Your task to perform on an android device: change timer sound Image 0: 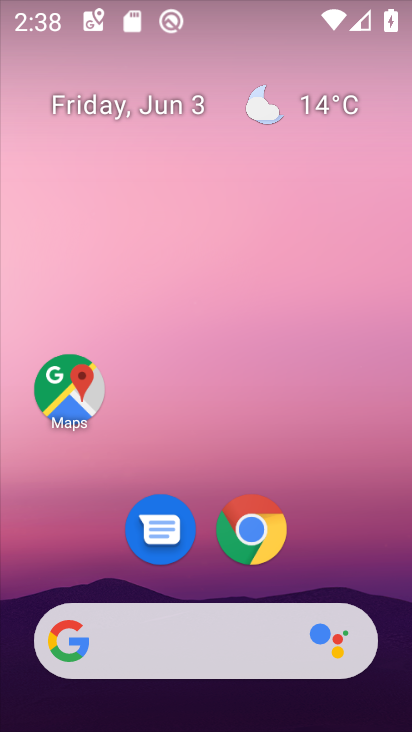
Step 0: drag from (226, 640) to (168, 260)
Your task to perform on an android device: change timer sound Image 1: 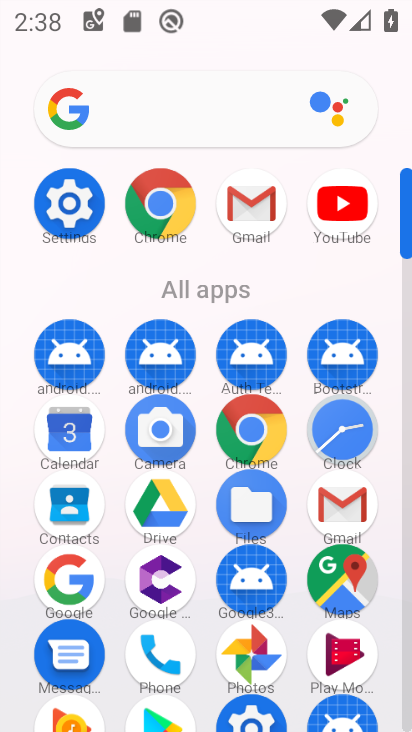
Step 1: click (333, 435)
Your task to perform on an android device: change timer sound Image 2: 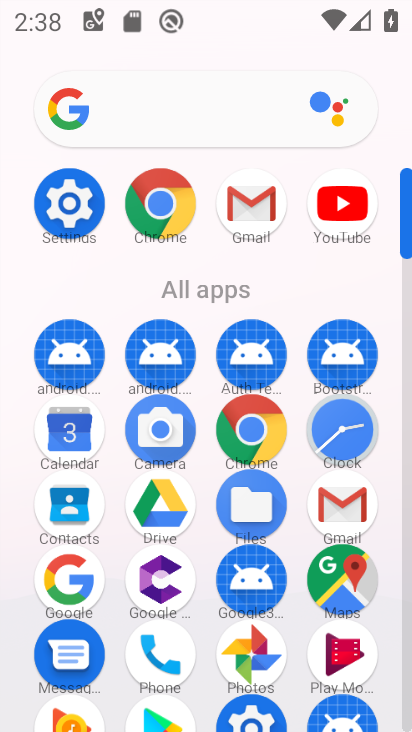
Step 2: click (335, 429)
Your task to perform on an android device: change timer sound Image 3: 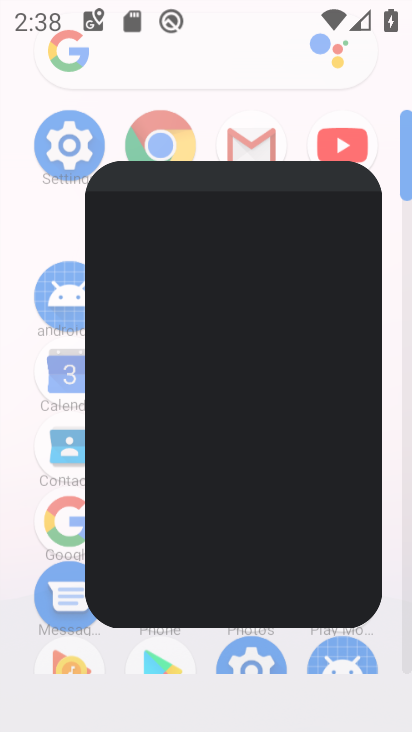
Step 3: click (336, 429)
Your task to perform on an android device: change timer sound Image 4: 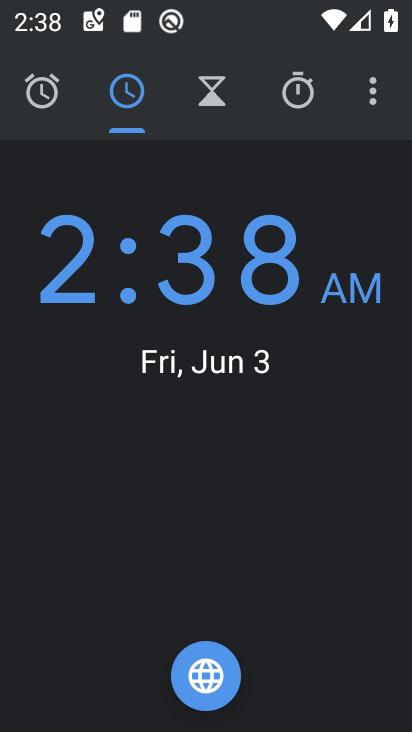
Step 4: click (215, 84)
Your task to perform on an android device: change timer sound Image 5: 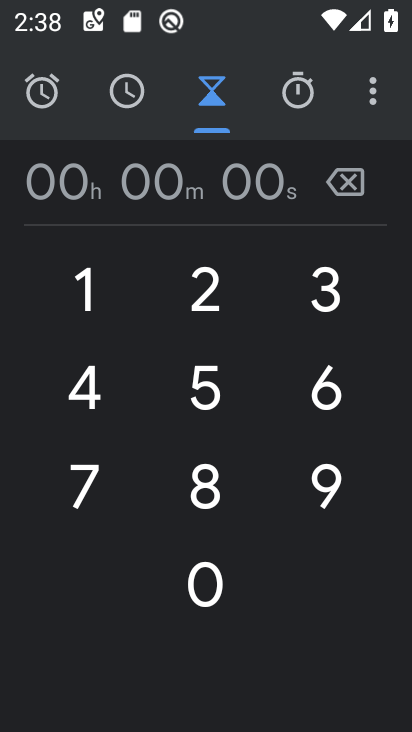
Step 5: click (202, 513)
Your task to perform on an android device: change timer sound Image 6: 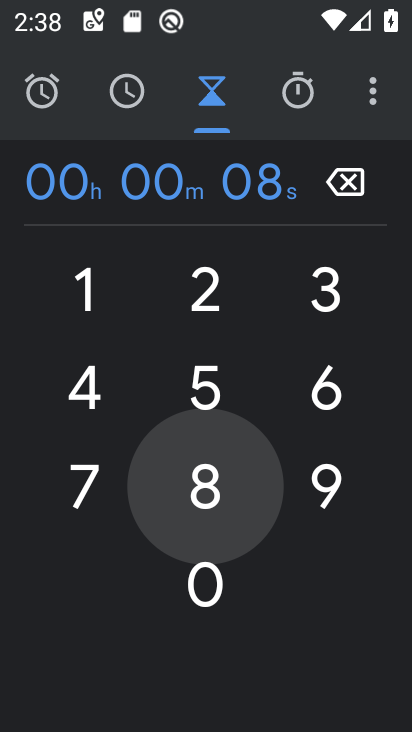
Step 6: click (201, 507)
Your task to perform on an android device: change timer sound Image 7: 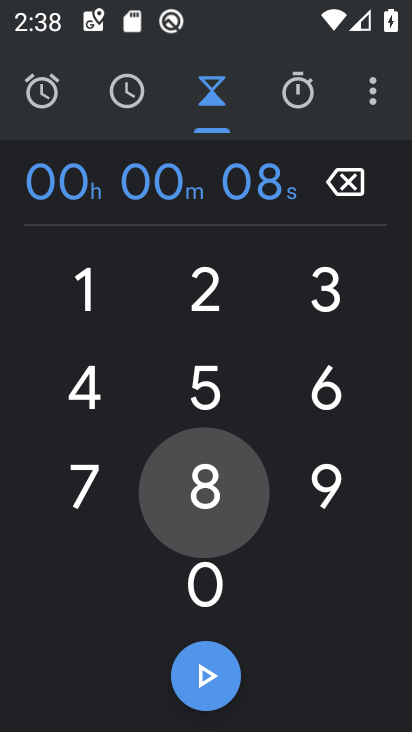
Step 7: click (199, 506)
Your task to perform on an android device: change timer sound Image 8: 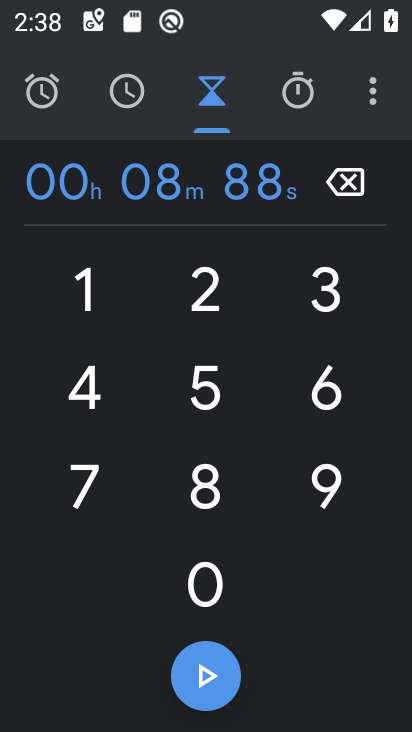
Step 8: click (210, 486)
Your task to perform on an android device: change timer sound Image 9: 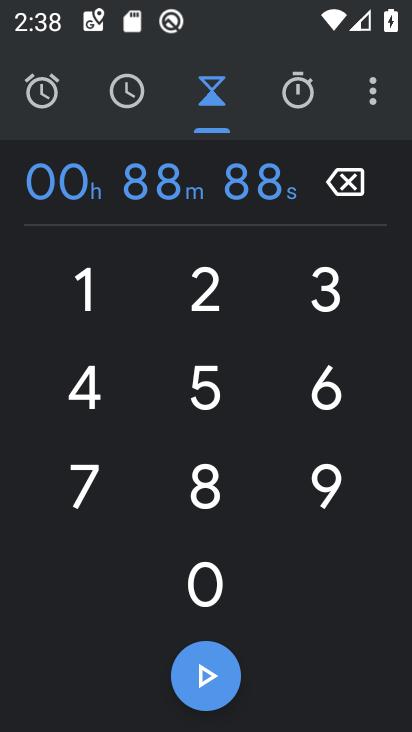
Step 9: click (210, 486)
Your task to perform on an android device: change timer sound Image 10: 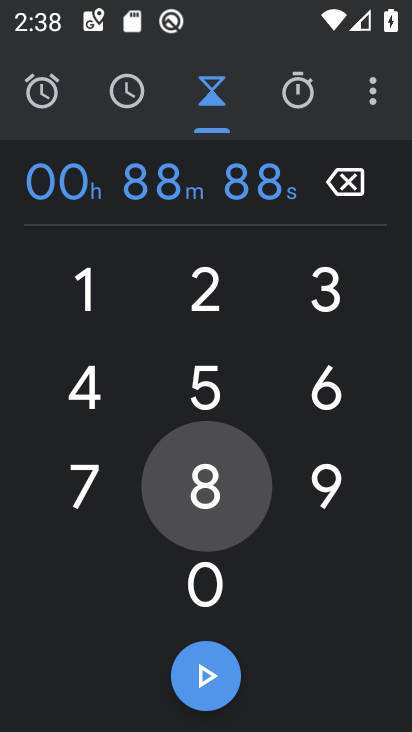
Step 10: click (211, 484)
Your task to perform on an android device: change timer sound Image 11: 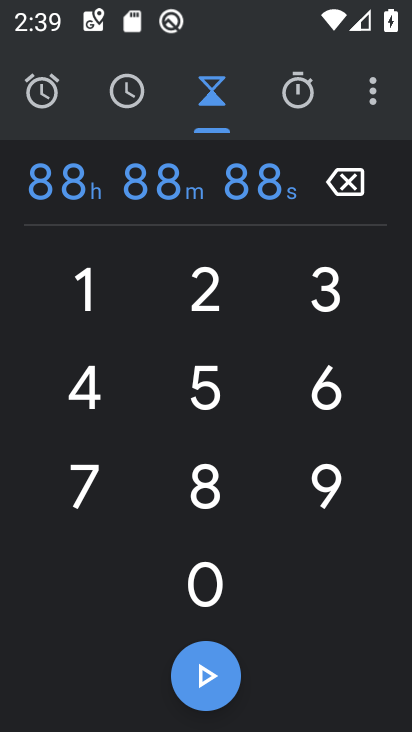
Step 11: click (198, 506)
Your task to perform on an android device: change timer sound Image 12: 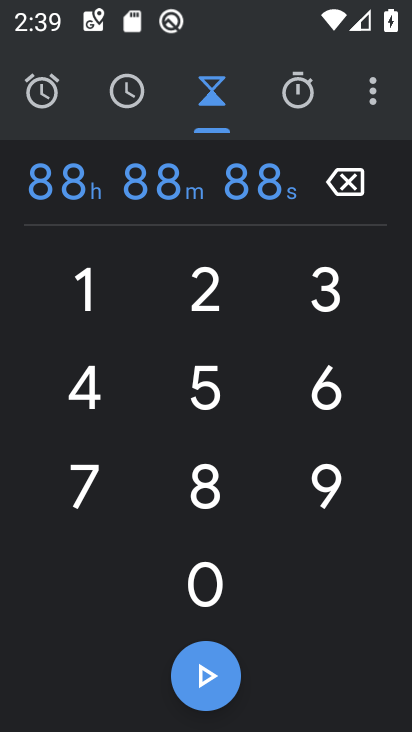
Step 12: click (201, 672)
Your task to perform on an android device: change timer sound Image 13: 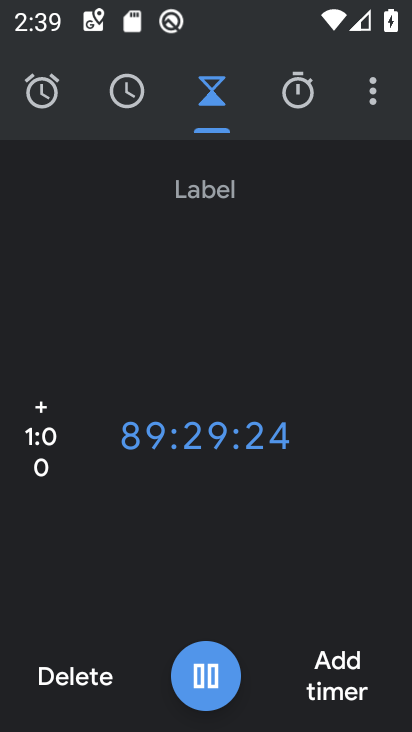
Step 13: click (198, 671)
Your task to perform on an android device: change timer sound Image 14: 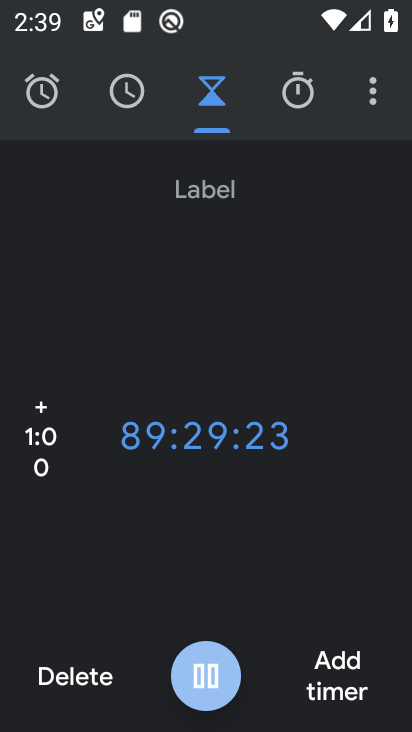
Step 14: click (195, 665)
Your task to perform on an android device: change timer sound Image 15: 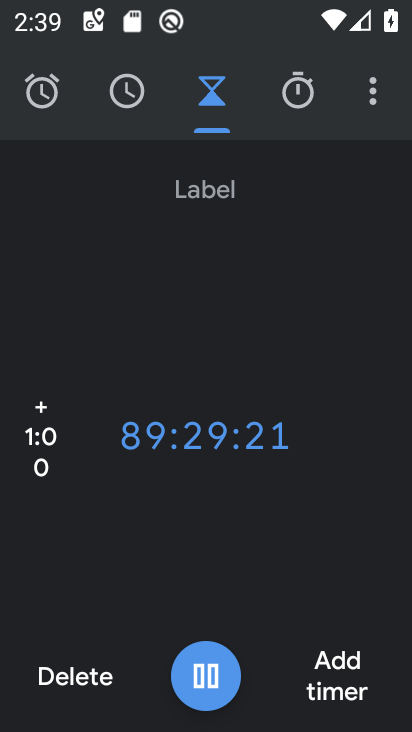
Step 15: click (204, 683)
Your task to perform on an android device: change timer sound Image 16: 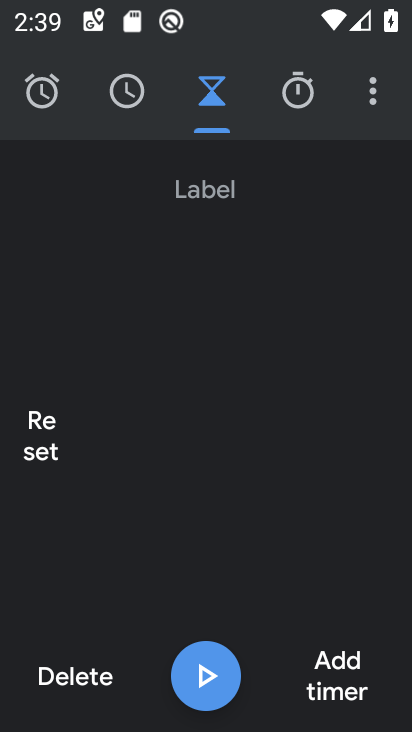
Step 16: task complete